Your task to perform on an android device: Open wifi settings Image 0: 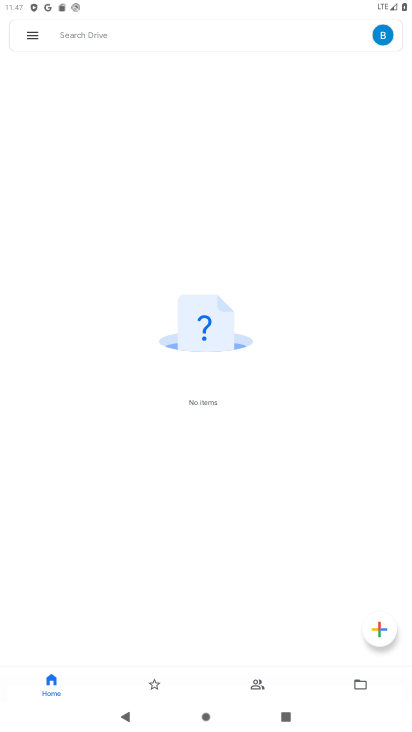
Step 0: drag from (141, 6) to (210, 550)
Your task to perform on an android device: Open wifi settings Image 1: 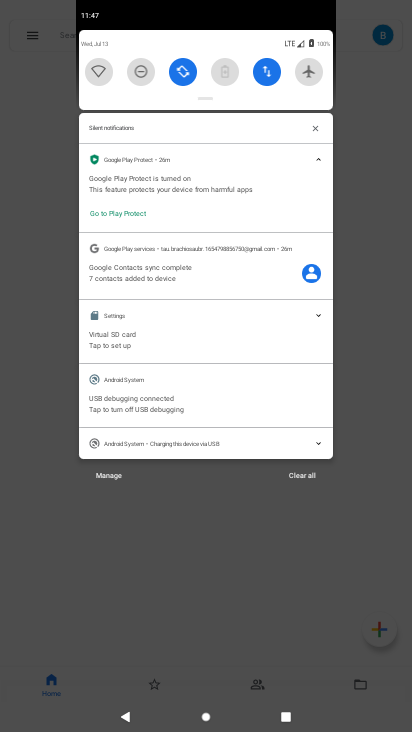
Step 1: click (103, 78)
Your task to perform on an android device: Open wifi settings Image 2: 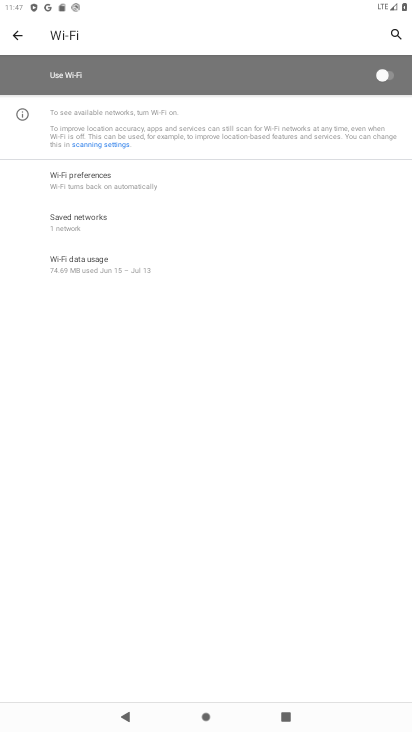
Step 2: task complete